Your task to perform on an android device: Open Google Maps and go to "Timeline" Image 0: 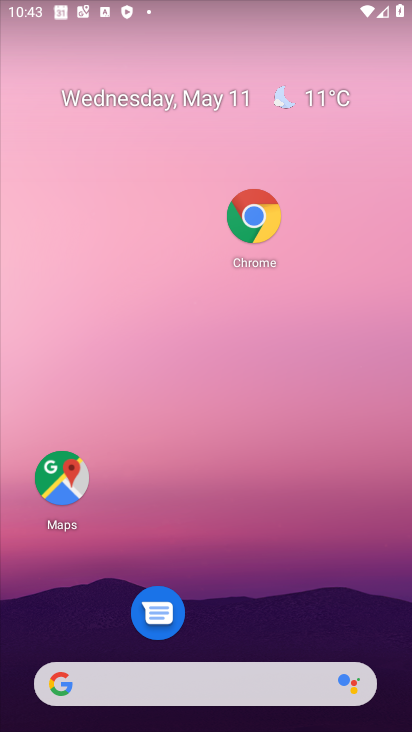
Step 0: drag from (180, 166) to (175, 121)
Your task to perform on an android device: Open Google Maps and go to "Timeline" Image 1: 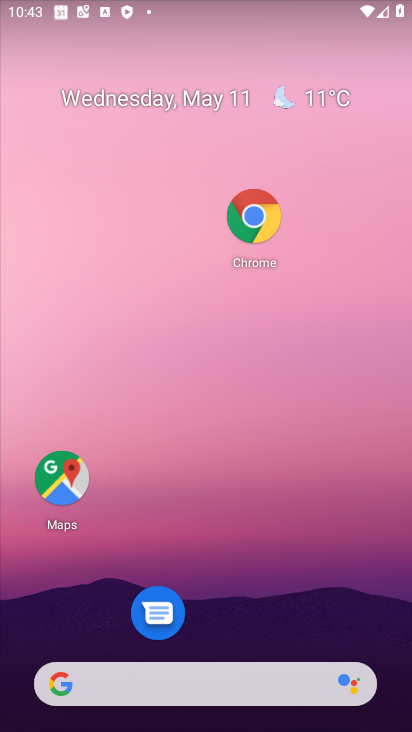
Step 1: drag from (209, 609) to (195, 141)
Your task to perform on an android device: Open Google Maps and go to "Timeline" Image 2: 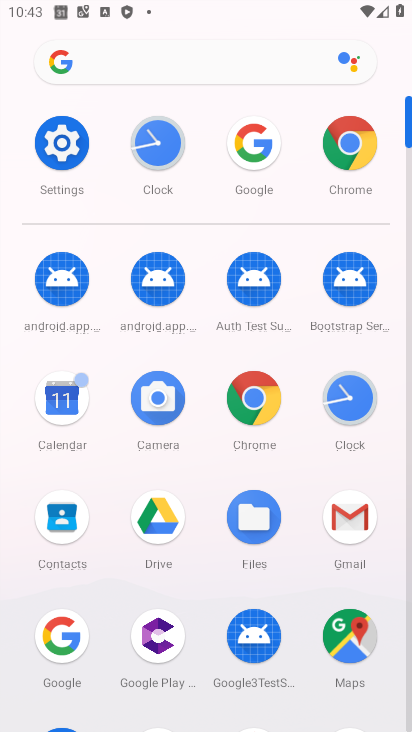
Step 2: click (345, 650)
Your task to perform on an android device: Open Google Maps and go to "Timeline" Image 3: 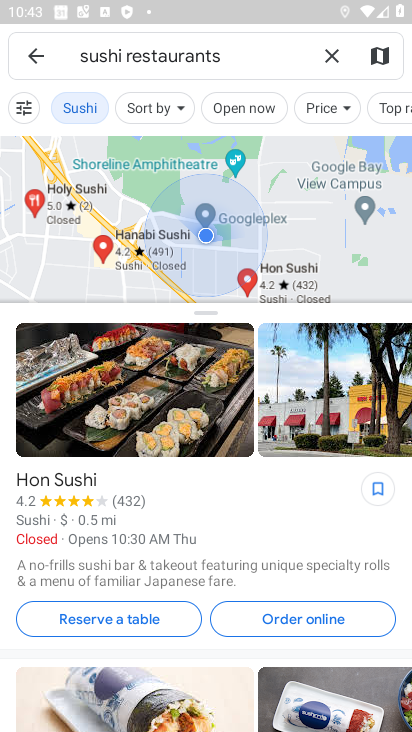
Step 3: press back button
Your task to perform on an android device: Open Google Maps and go to "Timeline" Image 4: 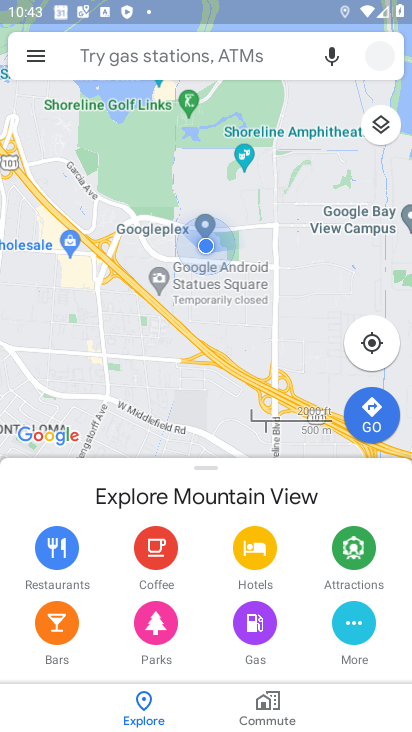
Step 4: click (43, 61)
Your task to perform on an android device: Open Google Maps and go to "Timeline" Image 5: 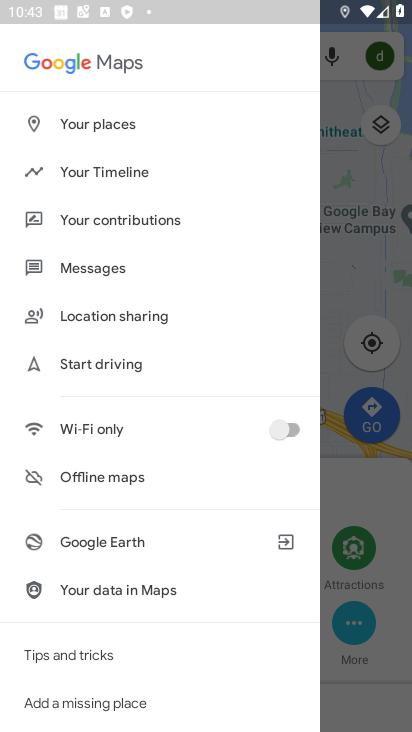
Step 5: click (114, 177)
Your task to perform on an android device: Open Google Maps and go to "Timeline" Image 6: 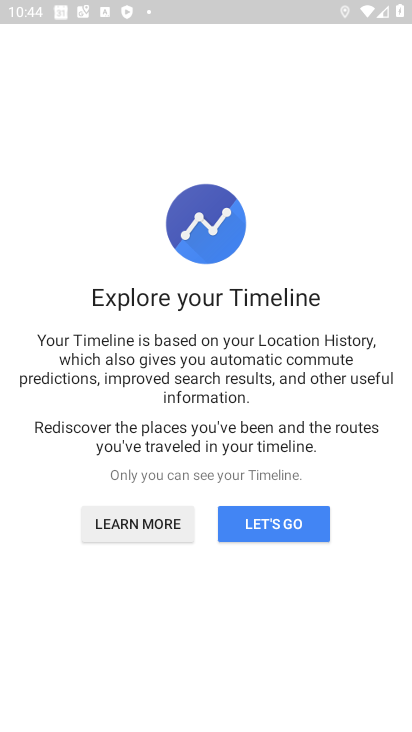
Step 6: click (296, 516)
Your task to perform on an android device: Open Google Maps and go to "Timeline" Image 7: 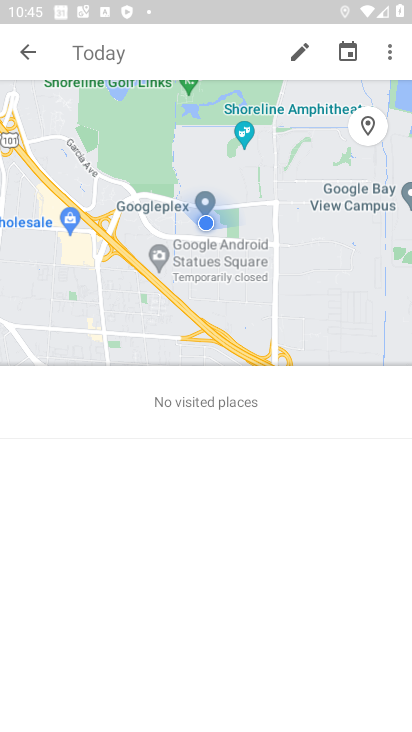
Step 7: task complete